Your task to perform on an android device: Show me productivity apps on the Play Store Image 0: 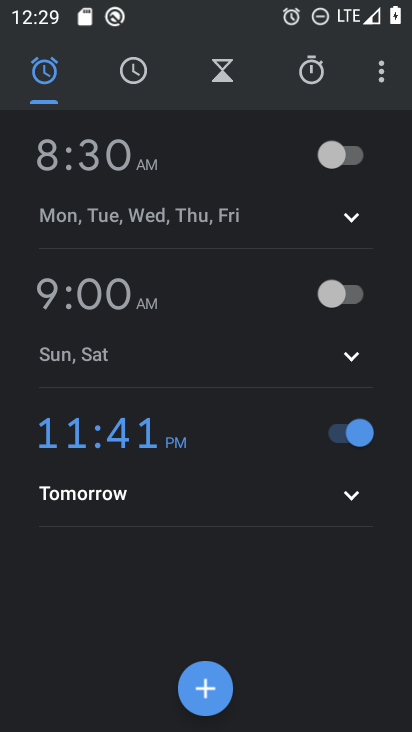
Step 0: press home button
Your task to perform on an android device: Show me productivity apps on the Play Store Image 1: 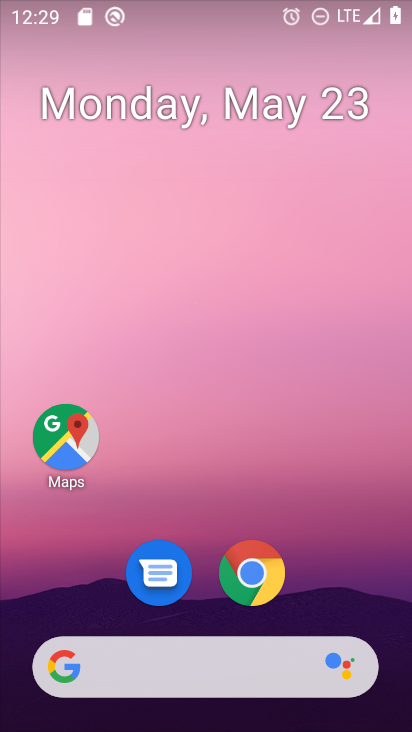
Step 1: drag from (336, 591) to (320, 66)
Your task to perform on an android device: Show me productivity apps on the Play Store Image 2: 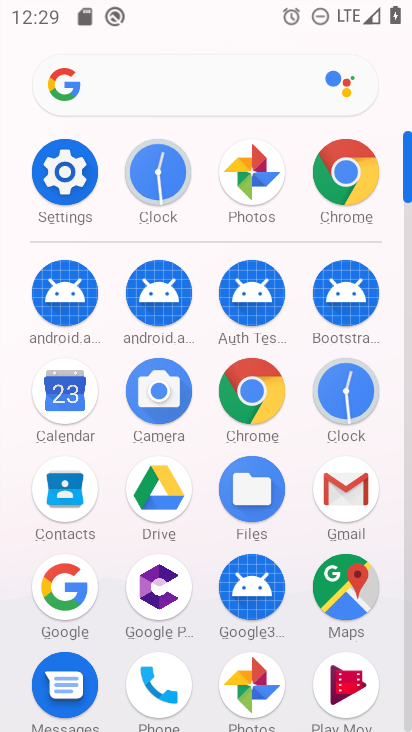
Step 2: drag from (204, 650) to (209, 358)
Your task to perform on an android device: Show me productivity apps on the Play Store Image 3: 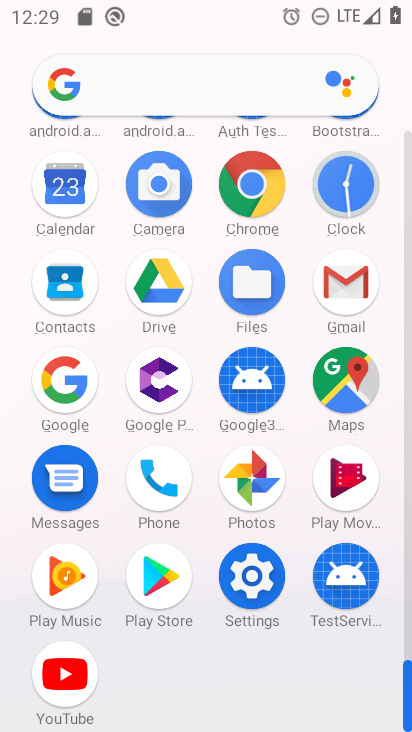
Step 3: click (147, 573)
Your task to perform on an android device: Show me productivity apps on the Play Store Image 4: 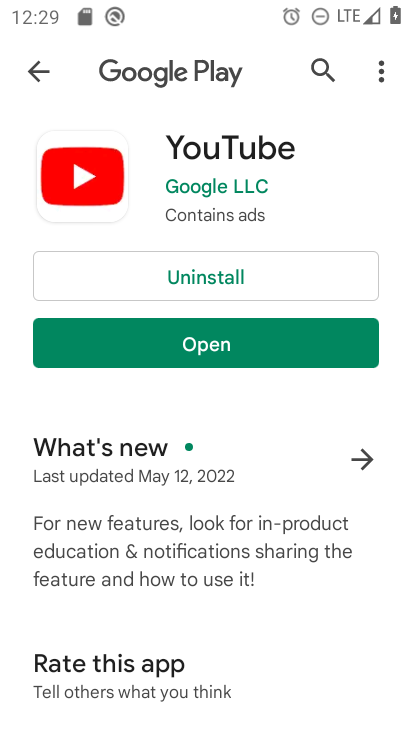
Step 4: click (39, 80)
Your task to perform on an android device: Show me productivity apps on the Play Store Image 5: 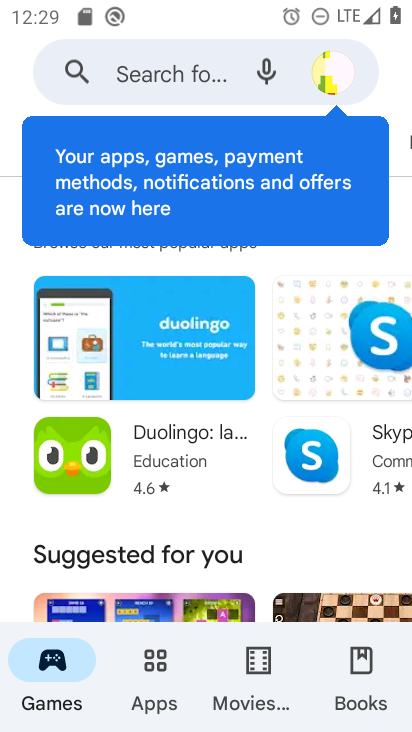
Step 5: click (162, 679)
Your task to perform on an android device: Show me productivity apps on the Play Store Image 6: 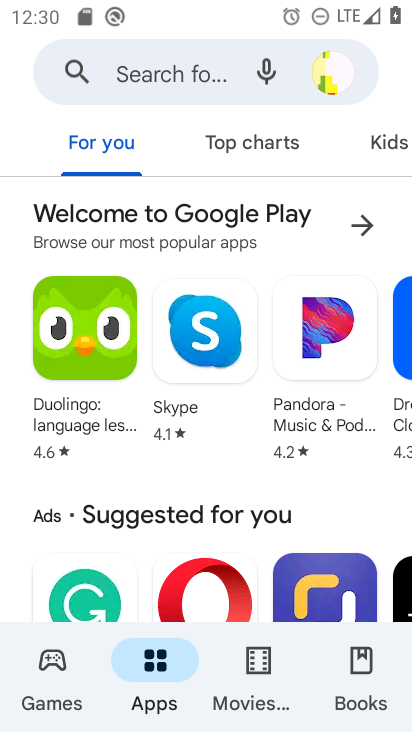
Step 6: drag from (389, 147) to (146, 153)
Your task to perform on an android device: Show me productivity apps on the Play Store Image 7: 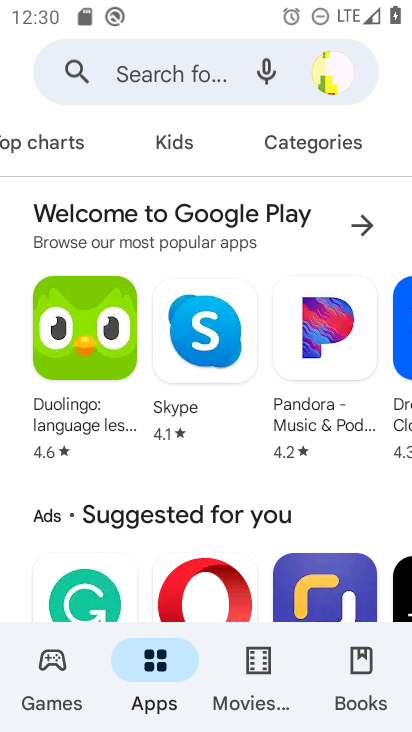
Step 7: click (324, 148)
Your task to perform on an android device: Show me productivity apps on the Play Store Image 8: 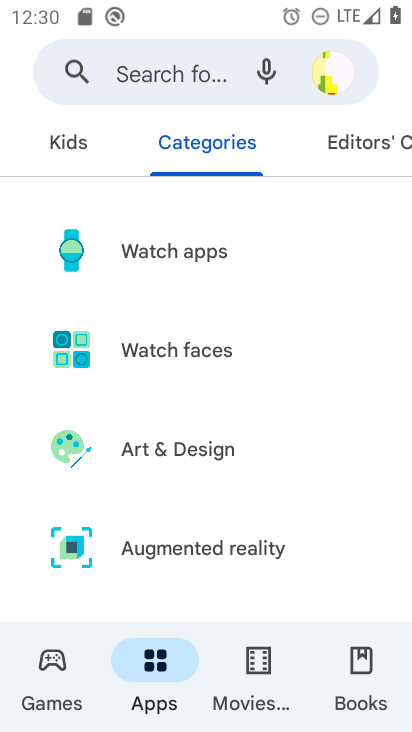
Step 8: drag from (134, 548) to (136, 299)
Your task to perform on an android device: Show me productivity apps on the Play Store Image 9: 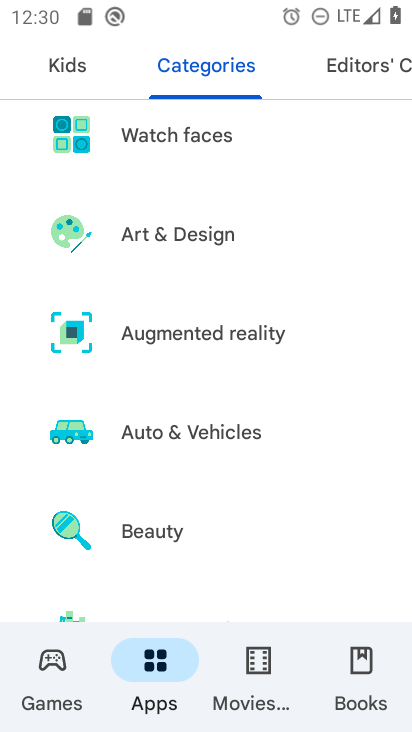
Step 9: drag from (182, 554) to (221, 352)
Your task to perform on an android device: Show me productivity apps on the Play Store Image 10: 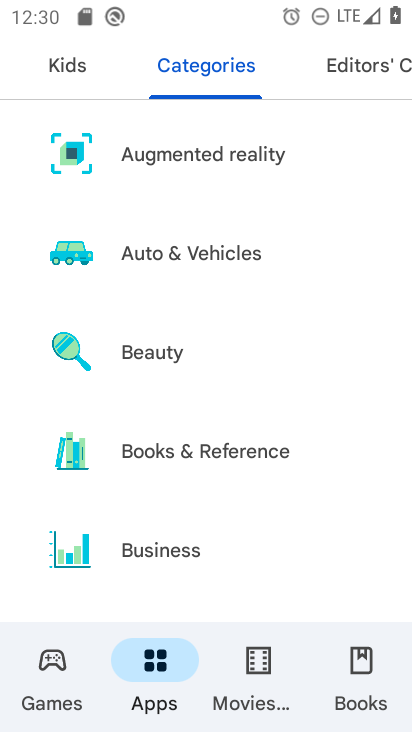
Step 10: drag from (253, 548) to (282, 242)
Your task to perform on an android device: Show me productivity apps on the Play Store Image 11: 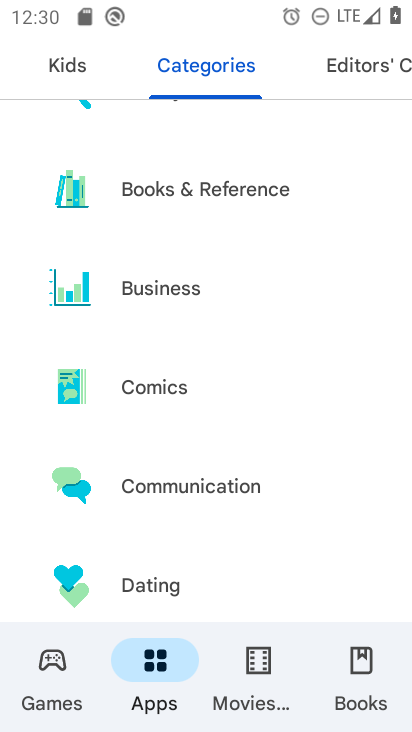
Step 11: drag from (227, 577) to (276, 288)
Your task to perform on an android device: Show me productivity apps on the Play Store Image 12: 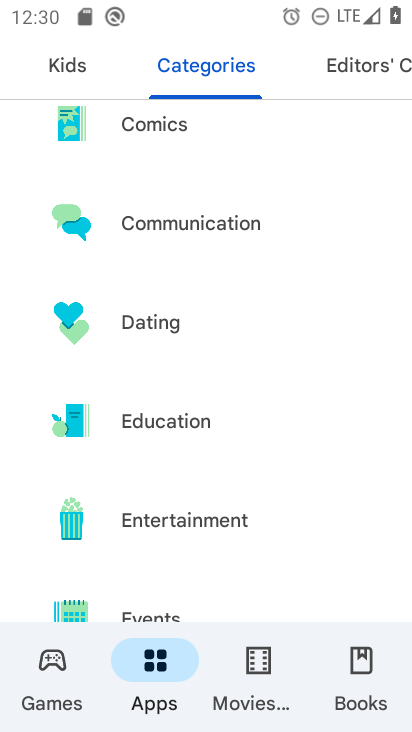
Step 12: drag from (272, 568) to (271, 256)
Your task to perform on an android device: Show me productivity apps on the Play Store Image 13: 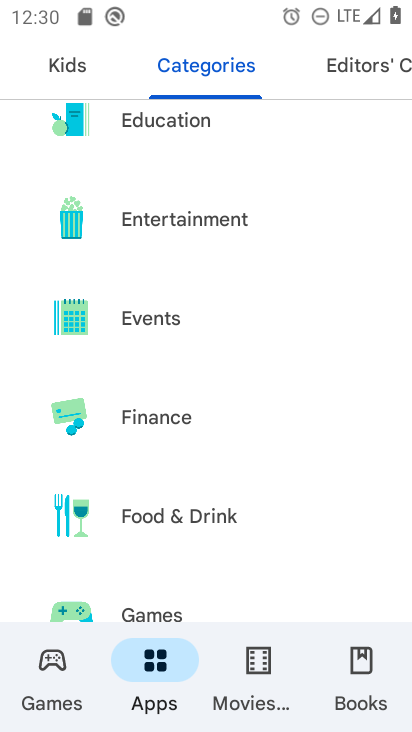
Step 13: drag from (237, 544) to (273, 227)
Your task to perform on an android device: Show me productivity apps on the Play Store Image 14: 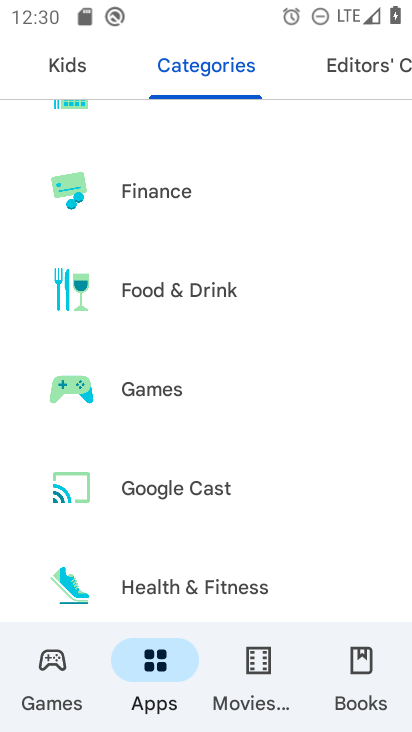
Step 14: drag from (298, 537) to (302, 174)
Your task to perform on an android device: Show me productivity apps on the Play Store Image 15: 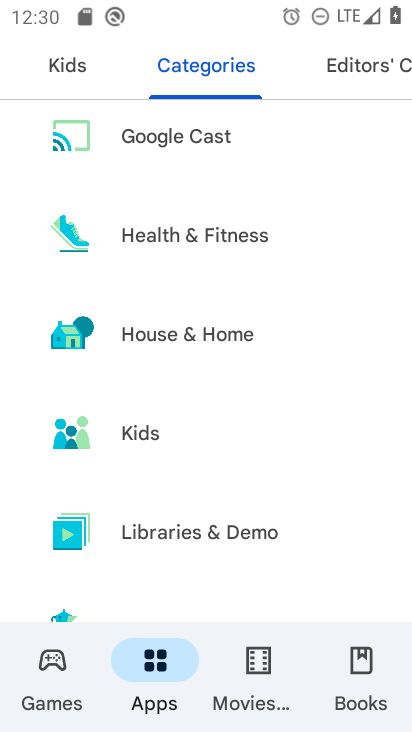
Step 15: drag from (234, 573) to (283, 235)
Your task to perform on an android device: Show me productivity apps on the Play Store Image 16: 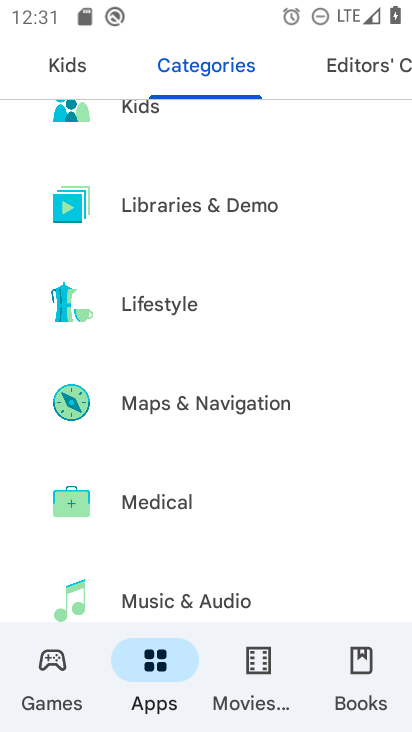
Step 16: drag from (278, 571) to (277, 234)
Your task to perform on an android device: Show me productivity apps on the Play Store Image 17: 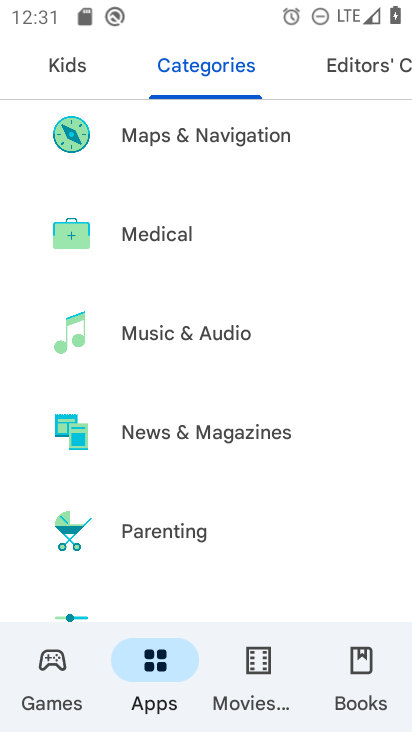
Step 17: drag from (237, 541) to (280, 280)
Your task to perform on an android device: Show me productivity apps on the Play Store Image 18: 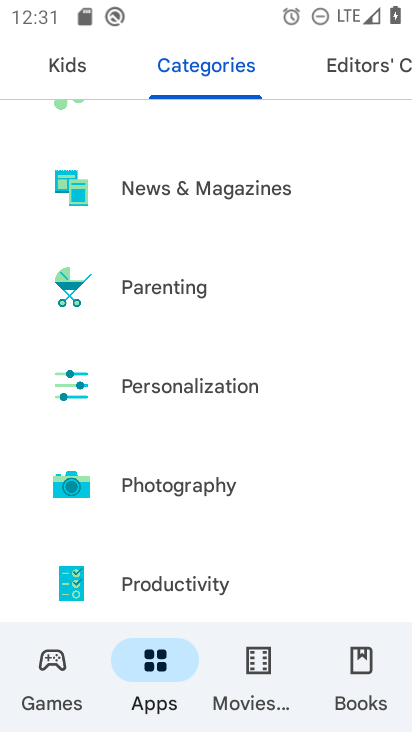
Step 18: click (202, 566)
Your task to perform on an android device: Show me productivity apps on the Play Store Image 19: 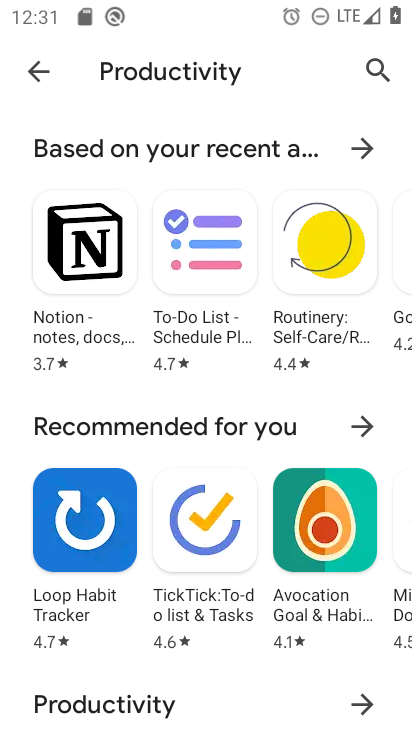
Step 19: task complete